Your task to perform on an android device: turn off priority inbox in the gmail app Image 0: 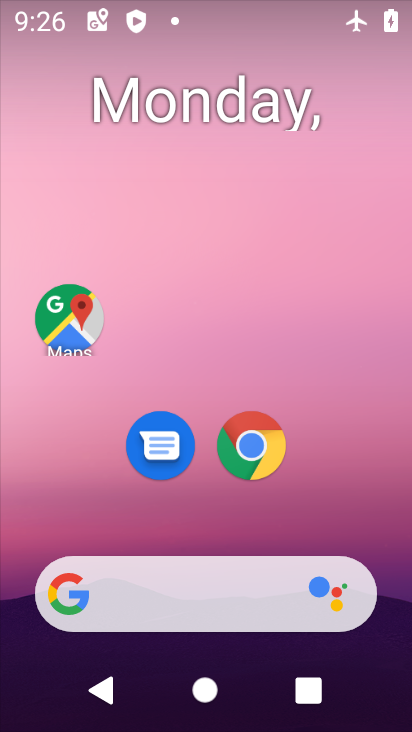
Step 0: drag from (259, 663) to (311, 186)
Your task to perform on an android device: turn off priority inbox in the gmail app Image 1: 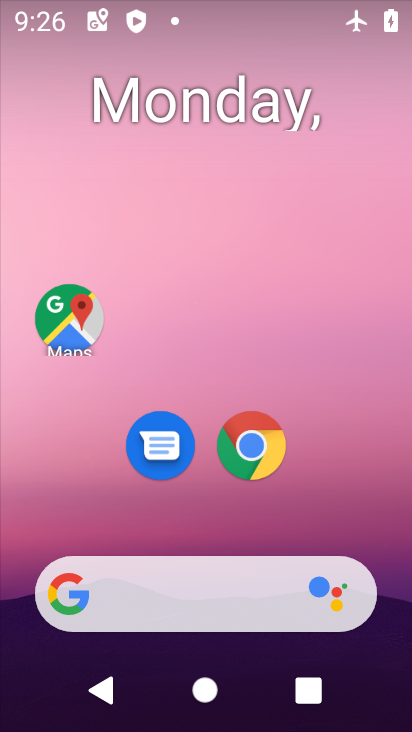
Step 1: drag from (264, 701) to (245, 8)
Your task to perform on an android device: turn off priority inbox in the gmail app Image 2: 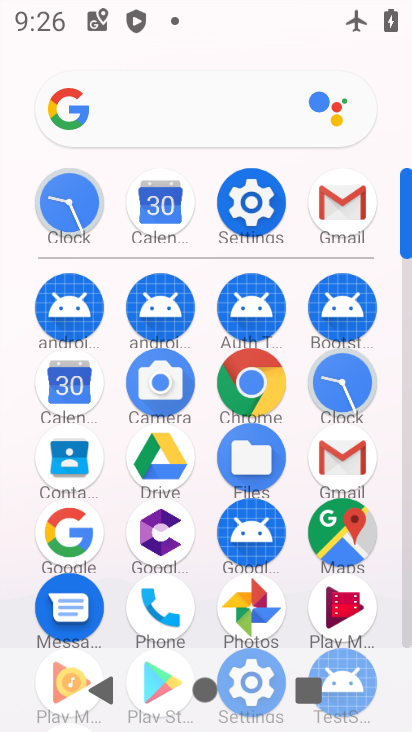
Step 2: click (350, 201)
Your task to perform on an android device: turn off priority inbox in the gmail app Image 3: 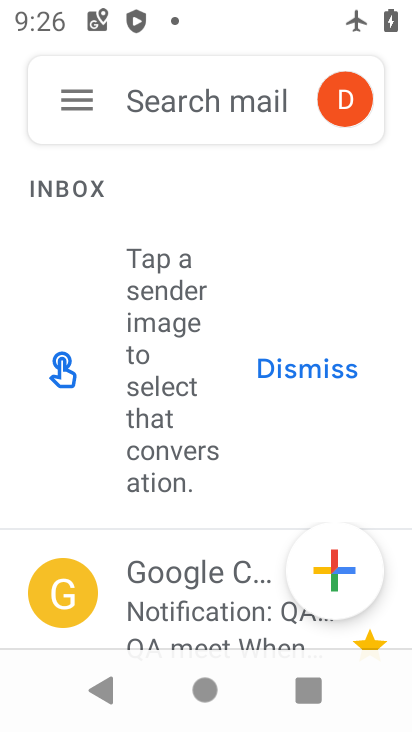
Step 3: click (69, 110)
Your task to perform on an android device: turn off priority inbox in the gmail app Image 4: 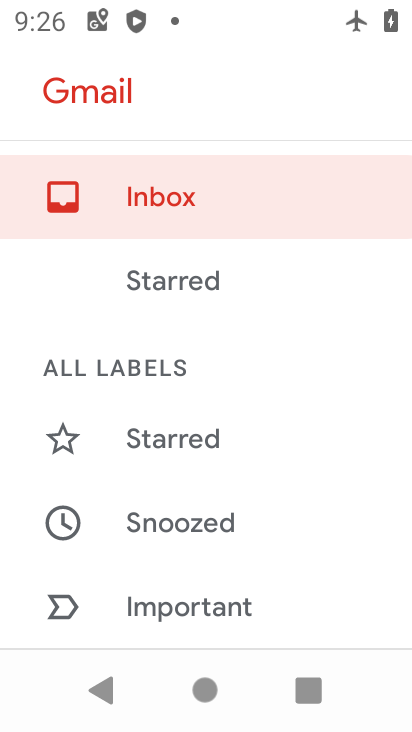
Step 4: drag from (214, 622) to (303, 57)
Your task to perform on an android device: turn off priority inbox in the gmail app Image 5: 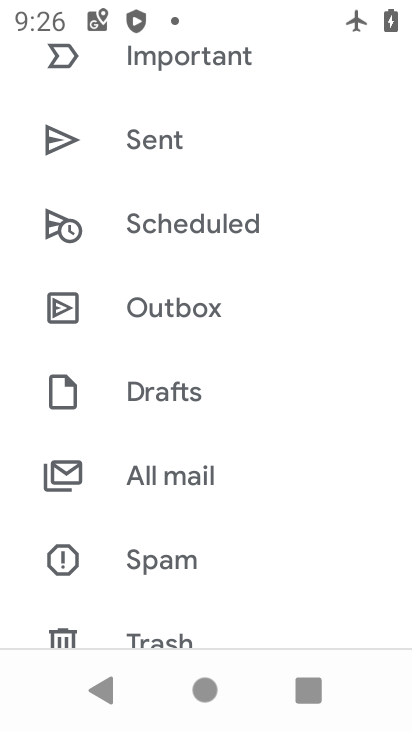
Step 5: drag from (294, 623) to (401, 24)
Your task to perform on an android device: turn off priority inbox in the gmail app Image 6: 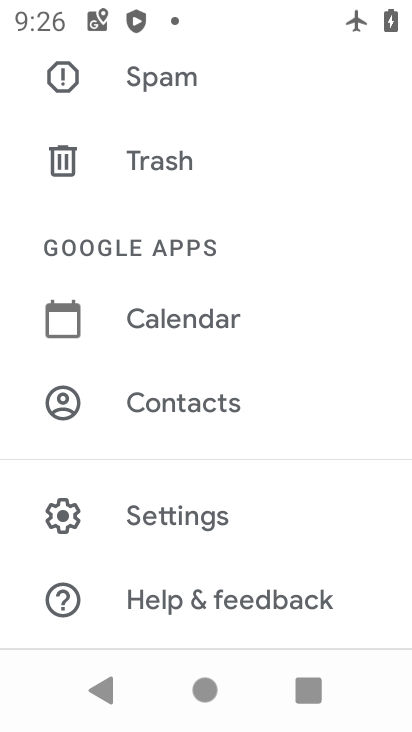
Step 6: click (237, 522)
Your task to perform on an android device: turn off priority inbox in the gmail app Image 7: 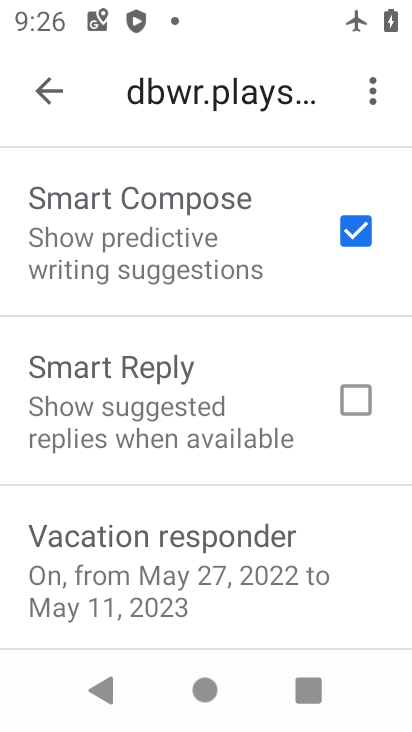
Step 7: drag from (250, 640) to (198, 38)
Your task to perform on an android device: turn off priority inbox in the gmail app Image 8: 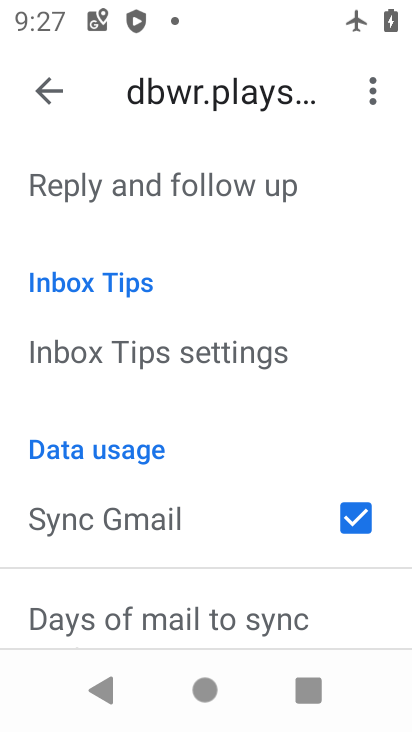
Step 8: click (195, 635)
Your task to perform on an android device: turn off priority inbox in the gmail app Image 9: 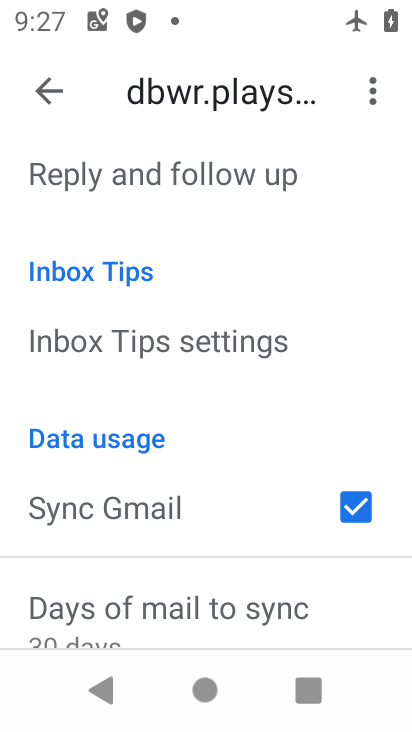
Step 9: drag from (129, 559) to (266, 129)
Your task to perform on an android device: turn off priority inbox in the gmail app Image 10: 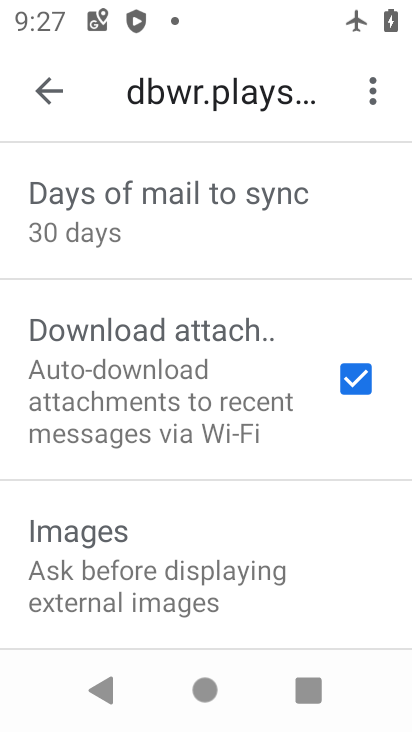
Step 10: drag from (133, 273) to (150, 723)
Your task to perform on an android device: turn off priority inbox in the gmail app Image 11: 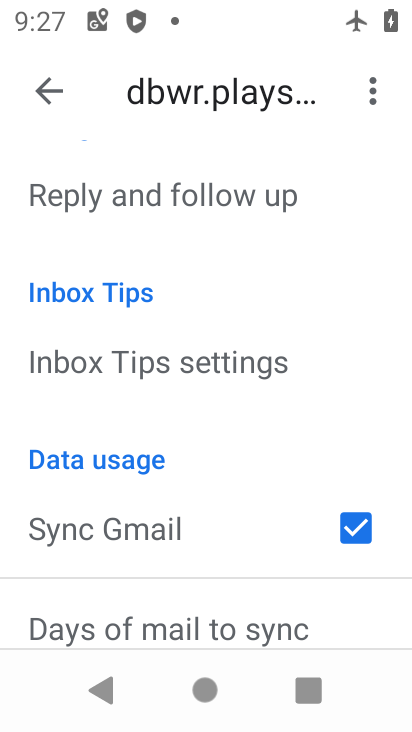
Step 11: drag from (293, 282) to (319, 696)
Your task to perform on an android device: turn off priority inbox in the gmail app Image 12: 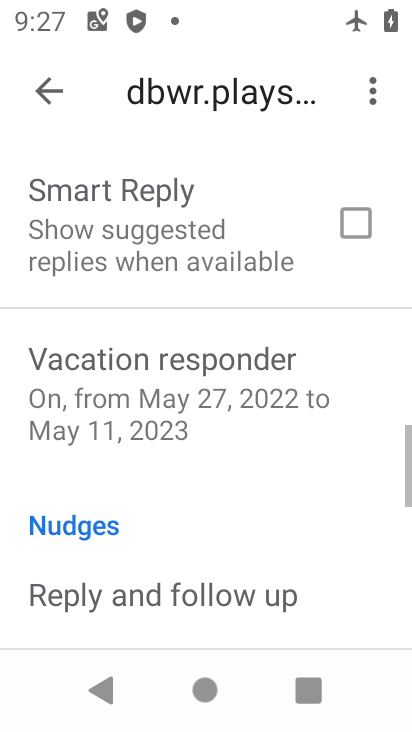
Step 12: drag from (244, 277) to (158, 709)
Your task to perform on an android device: turn off priority inbox in the gmail app Image 13: 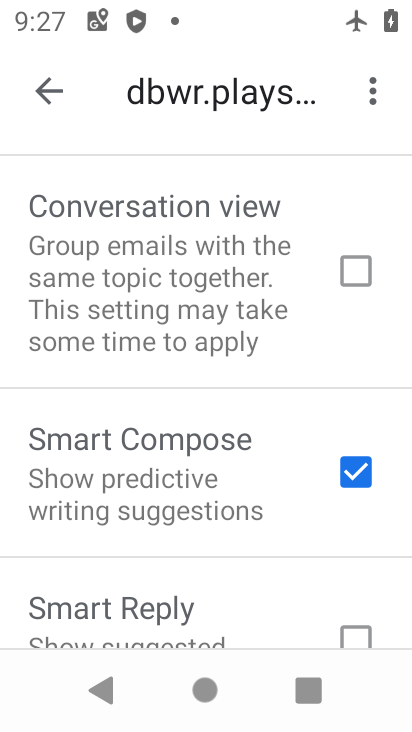
Step 13: drag from (248, 282) to (141, 702)
Your task to perform on an android device: turn off priority inbox in the gmail app Image 14: 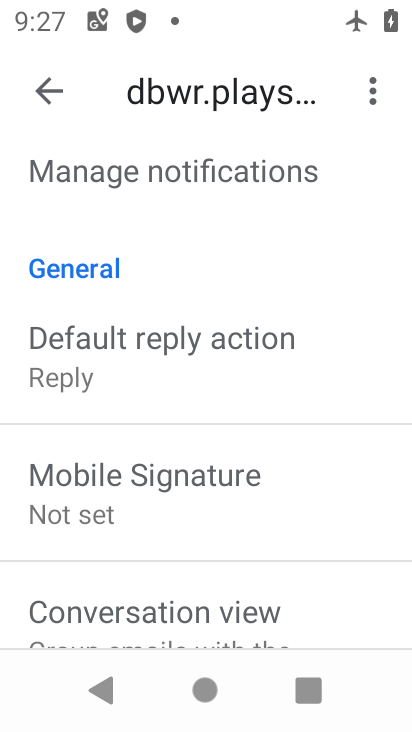
Step 14: drag from (261, 377) to (281, 624)
Your task to perform on an android device: turn off priority inbox in the gmail app Image 15: 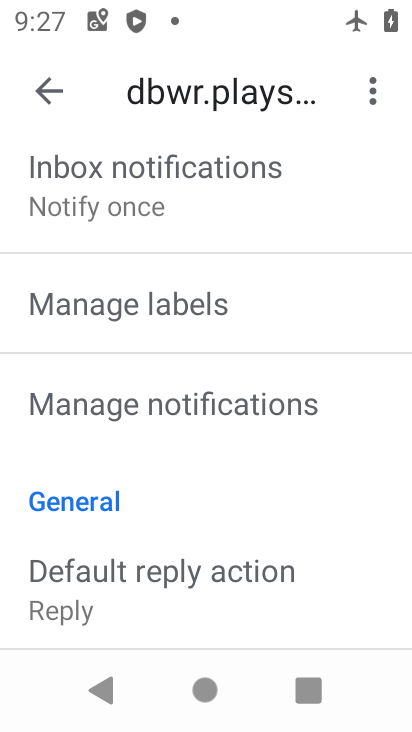
Step 15: drag from (277, 225) to (307, 727)
Your task to perform on an android device: turn off priority inbox in the gmail app Image 16: 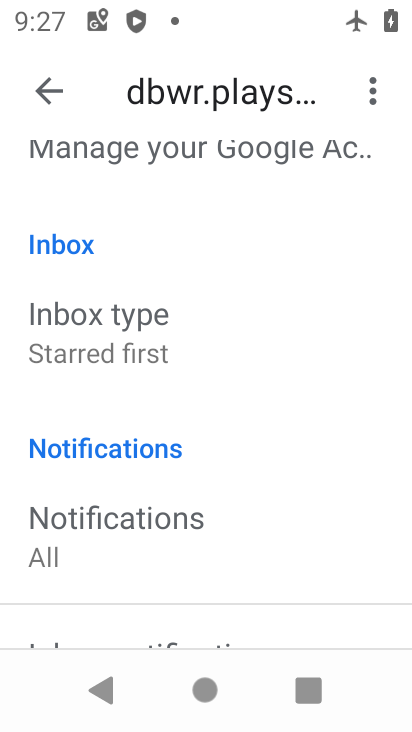
Step 16: click (85, 351)
Your task to perform on an android device: turn off priority inbox in the gmail app Image 17: 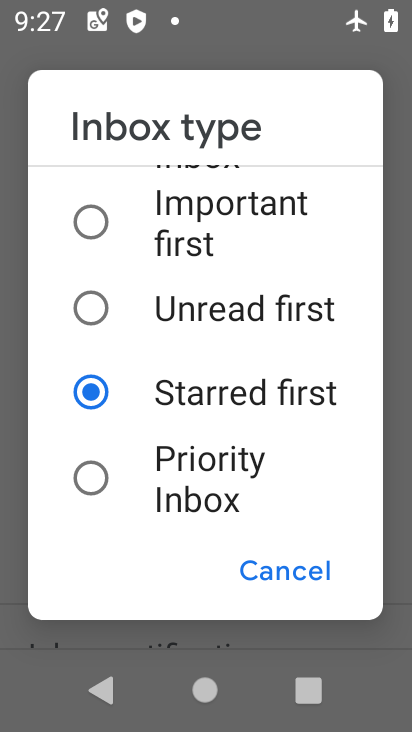
Step 17: task complete